Your task to perform on an android device: delete the emails in spam in the gmail app Image 0: 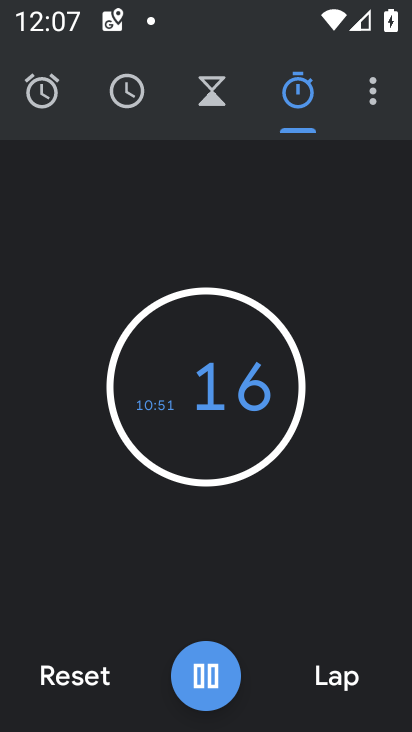
Step 0: press home button
Your task to perform on an android device: delete the emails in spam in the gmail app Image 1: 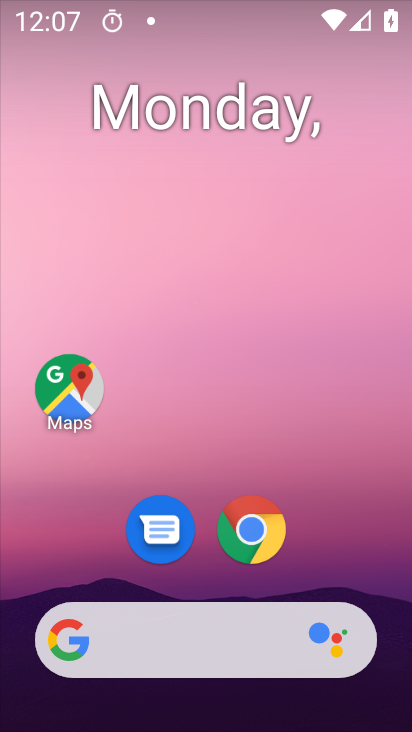
Step 1: drag from (373, 559) to (350, 161)
Your task to perform on an android device: delete the emails in spam in the gmail app Image 2: 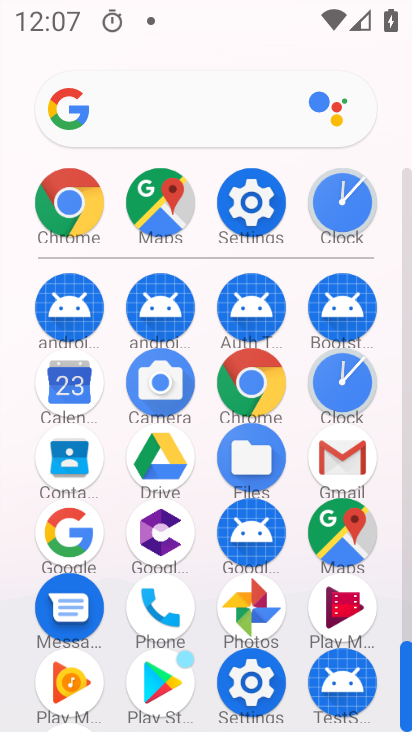
Step 2: click (349, 458)
Your task to perform on an android device: delete the emails in spam in the gmail app Image 3: 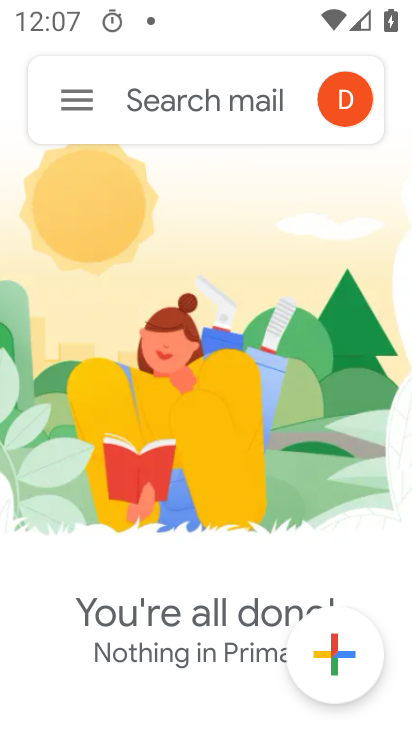
Step 3: click (64, 98)
Your task to perform on an android device: delete the emails in spam in the gmail app Image 4: 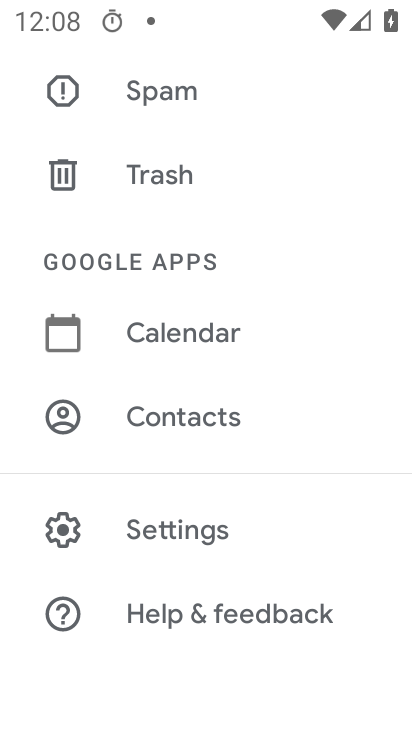
Step 4: drag from (298, 503) to (312, 370)
Your task to perform on an android device: delete the emails in spam in the gmail app Image 5: 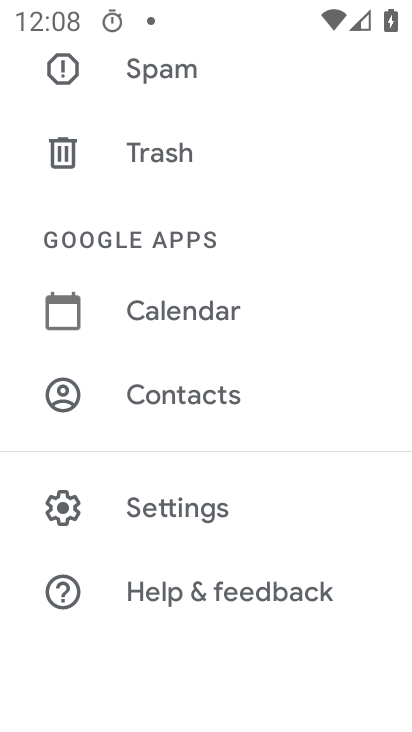
Step 5: drag from (312, 231) to (302, 338)
Your task to perform on an android device: delete the emails in spam in the gmail app Image 6: 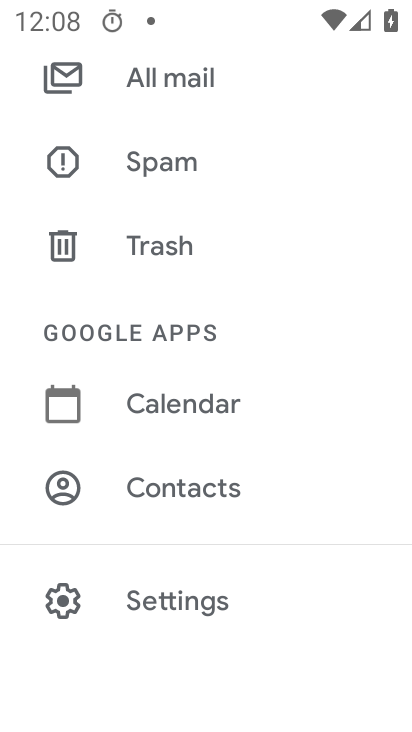
Step 6: drag from (304, 190) to (301, 360)
Your task to perform on an android device: delete the emails in spam in the gmail app Image 7: 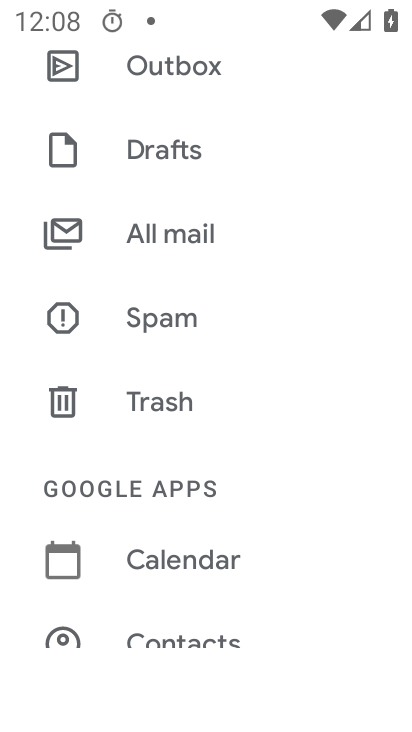
Step 7: drag from (315, 195) to (314, 318)
Your task to perform on an android device: delete the emails in spam in the gmail app Image 8: 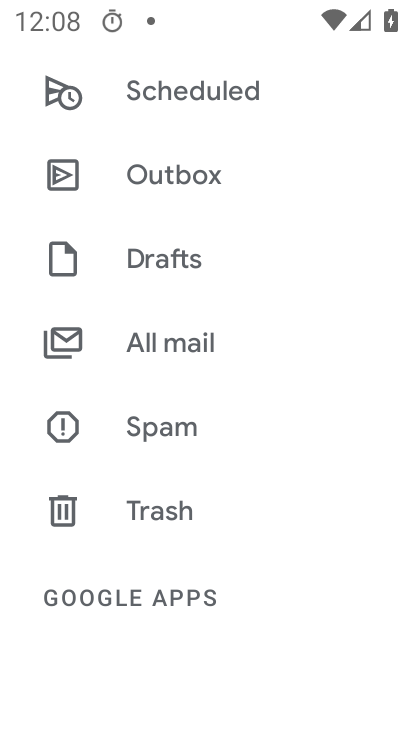
Step 8: drag from (334, 160) to (322, 314)
Your task to perform on an android device: delete the emails in spam in the gmail app Image 9: 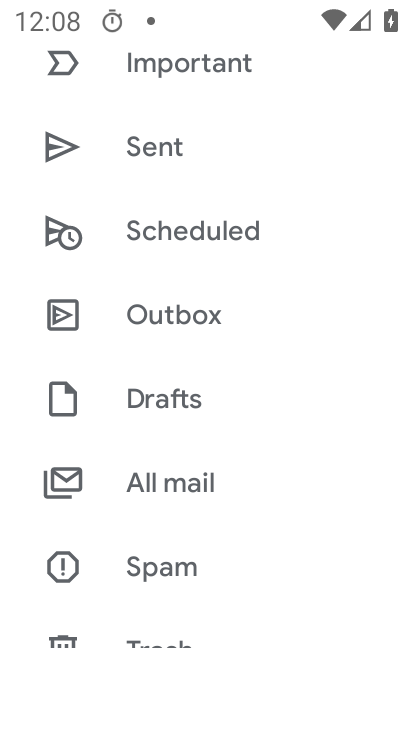
Step 9: click (184, 561)
Your task to perform on an android device: delete the emails in spam in the gmail app Image 10: 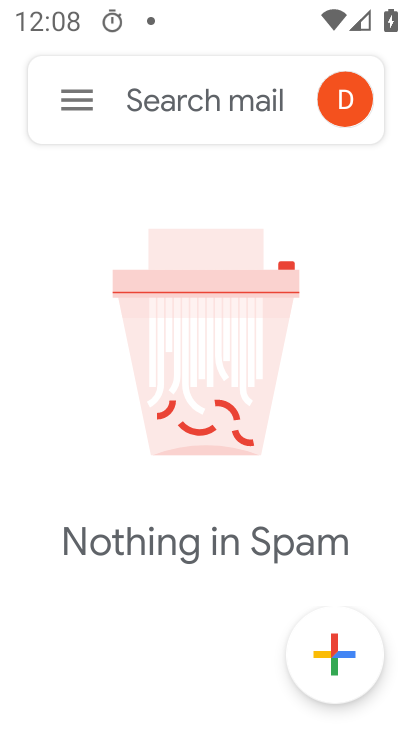
Step 10: task complete